Your task to perform on an android device: turn notification dots off Image 0: 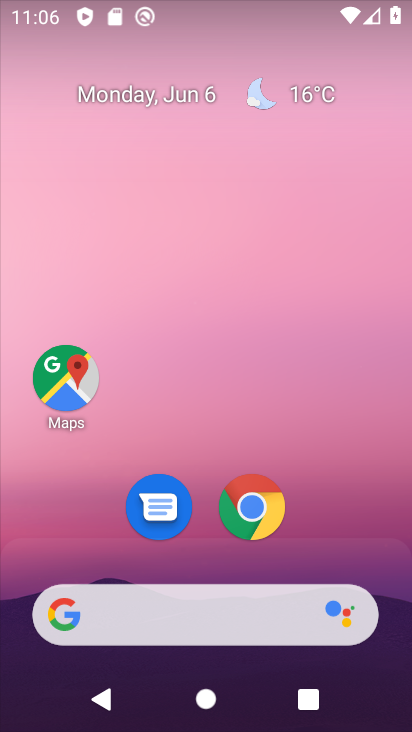
Step 0: drag from (302, 551) to (298, 87)
Your task to perform on an android device: turn notification dots off Image 1: 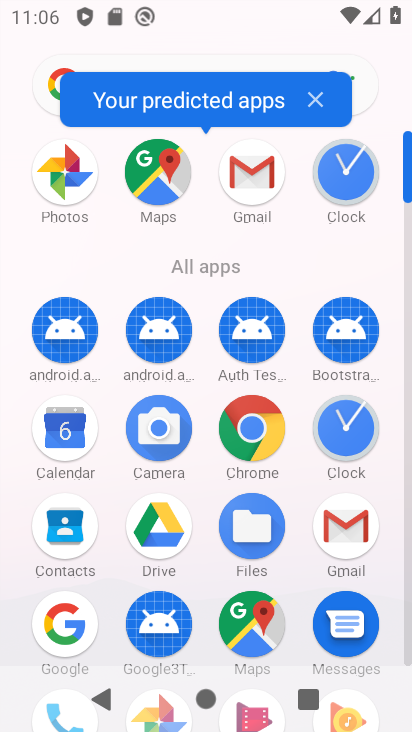
Step 1: drag from (206, 567) to (210, 81)
Your task to perform on an android device: turn notification dots off Image 2: 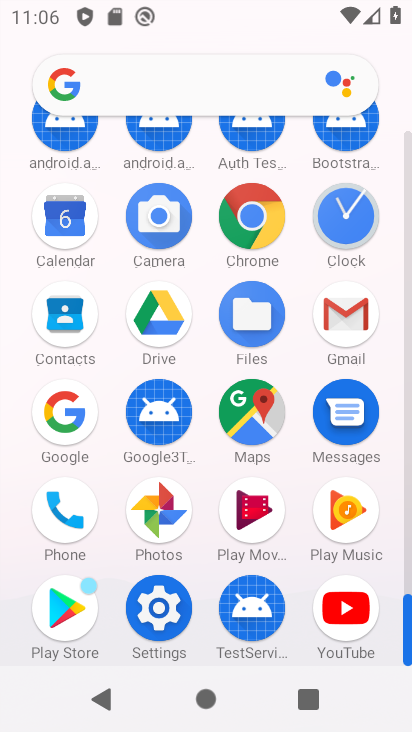
Step 2: click (161, 620)
Your task to perform on an android device: turn notification dots off Image 3: 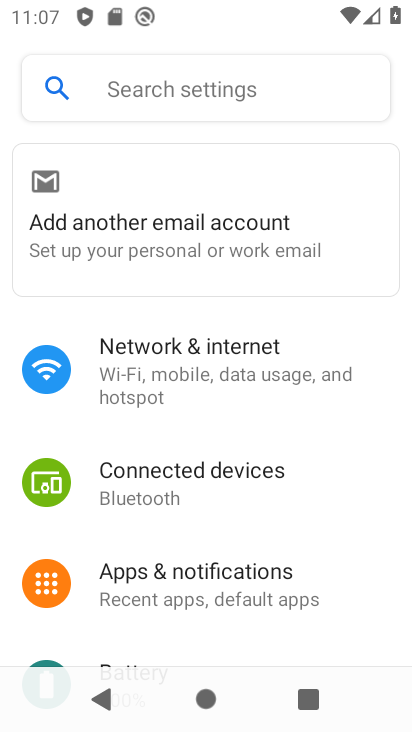
Step 3: click (227, 589)
Your task to perform on an android device: turn notification dots off Image 4: 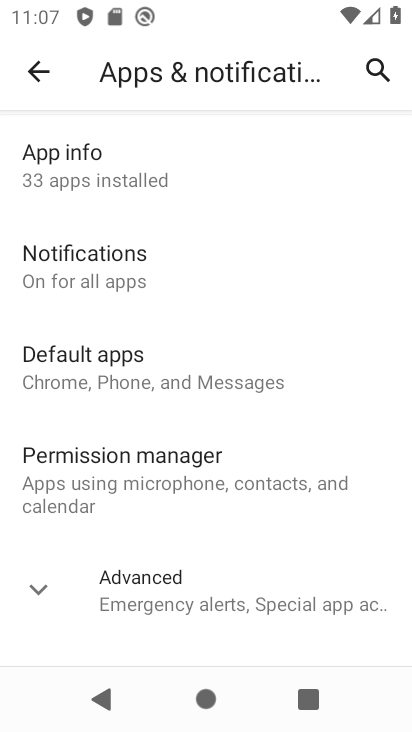
Step 4: click (138, 279)
Your task to perform on an android device: turn notification dots off Image 5: 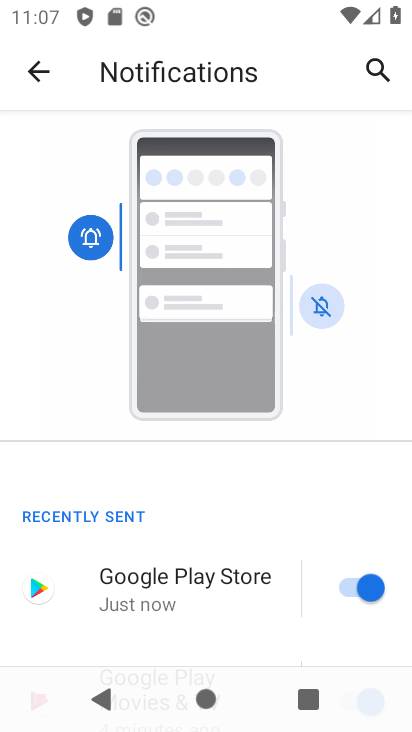
Step 5: drag from (225, 590) to (184, 59)
Your task to perform on an android device: turn notification dots off Image 6: 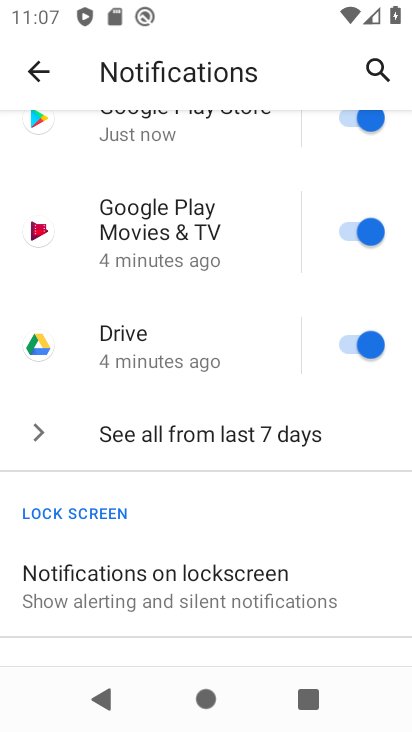
Step 6: drag from (202, 600) to (194, 208)
Your task to perform on an android device: turn notification dots off Image 7: 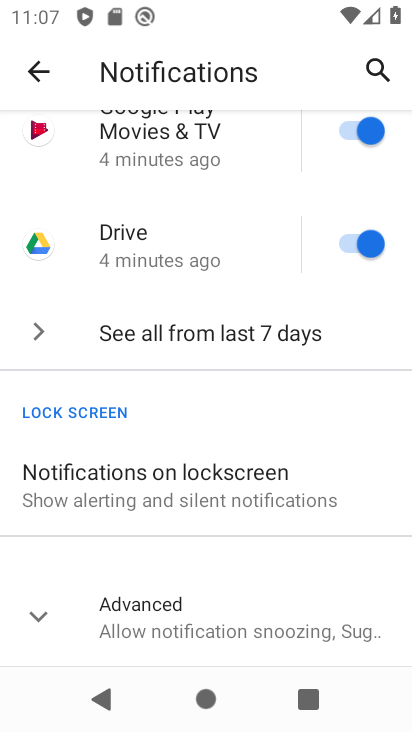
Step 7: click (169, 620)
Your task to perform on an android device: turn notification dots off Image 8: 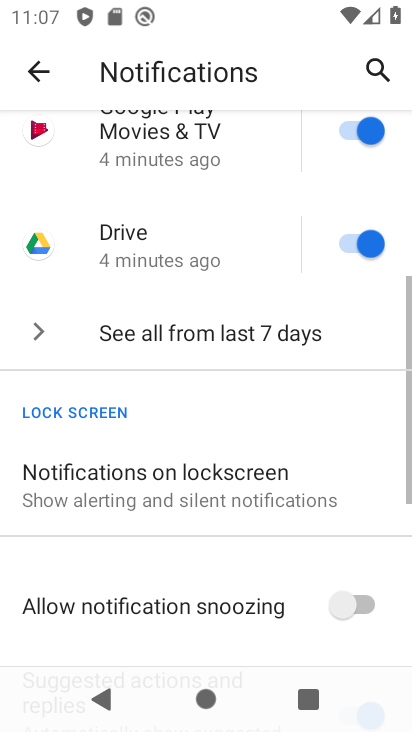
Step 8: drag from (240, 604) to (216, 268)
Your task to perform on an android device: turn notification dots off Image 9: 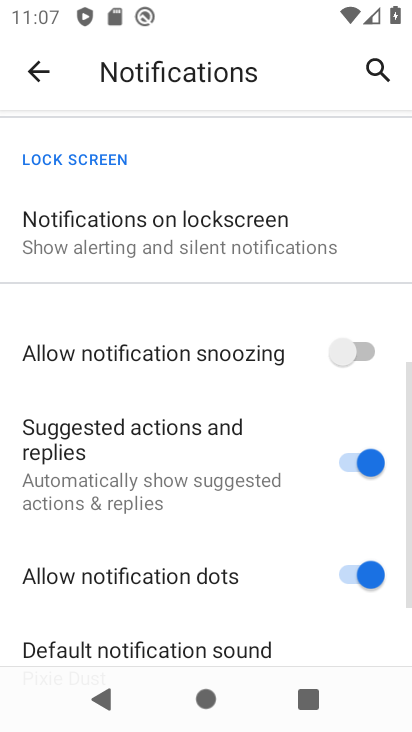
Step 9: drag from (216, 578) to (213, 398)
Your task to perform on an android device: turn notification dots off Image 10: 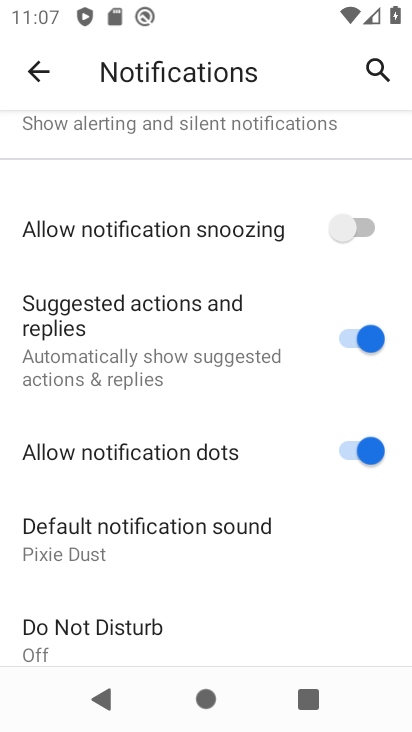
Step 10: drag from (360, 452) to (357, 393)
Your task to perform on an android device: turn notification dots off Image 11: 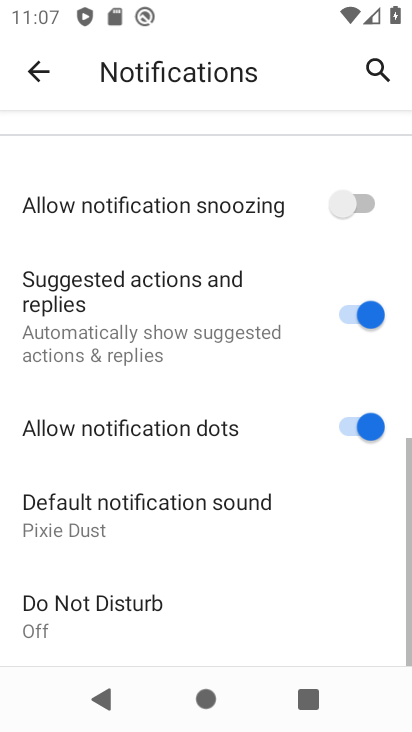
Step 11: click (364, 440)
Your task to perform on an android device: turn notification dots off Image 12: 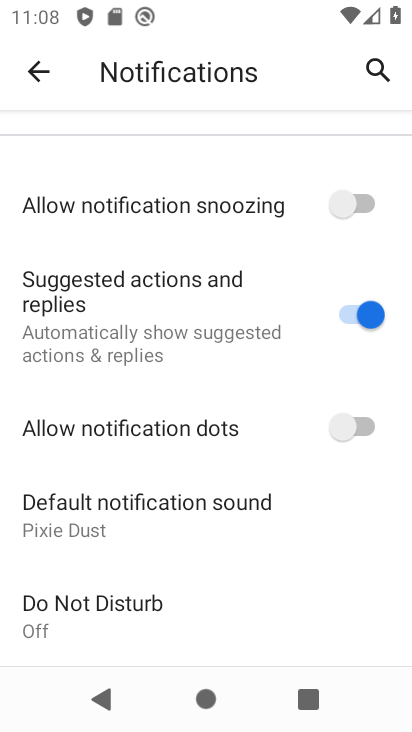
Step 12: task complete